Your task to perform on an android device: Clear the cart on newegg.com. Search for "corsair k70" on newegg.com, select the first entry, and add it to the cart. Image 0: 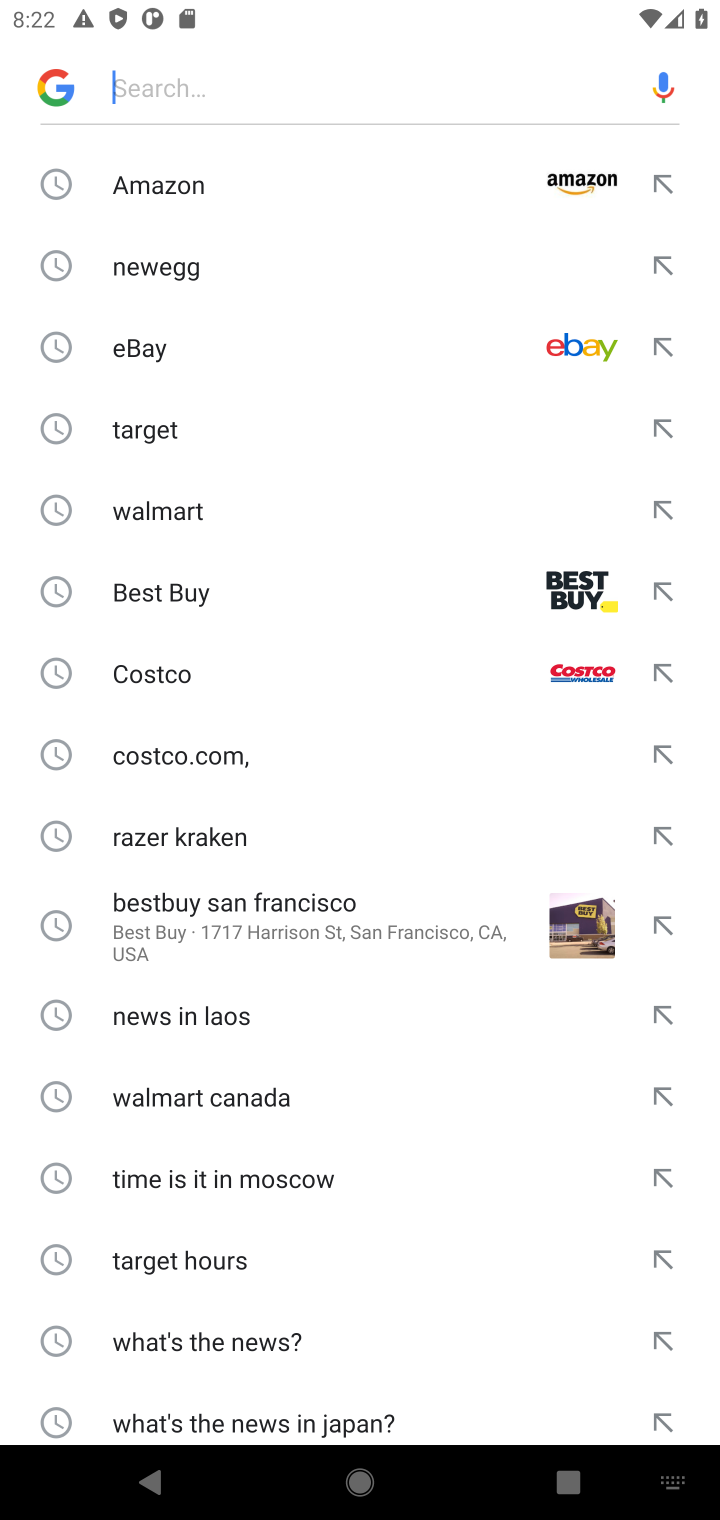
Step 0: press home button
Your task to perform on an android device: Clear the cart on newegg.com. Search for "corsair k70" on newegg.com, select the first entry, and add it to the cart. Image 1: 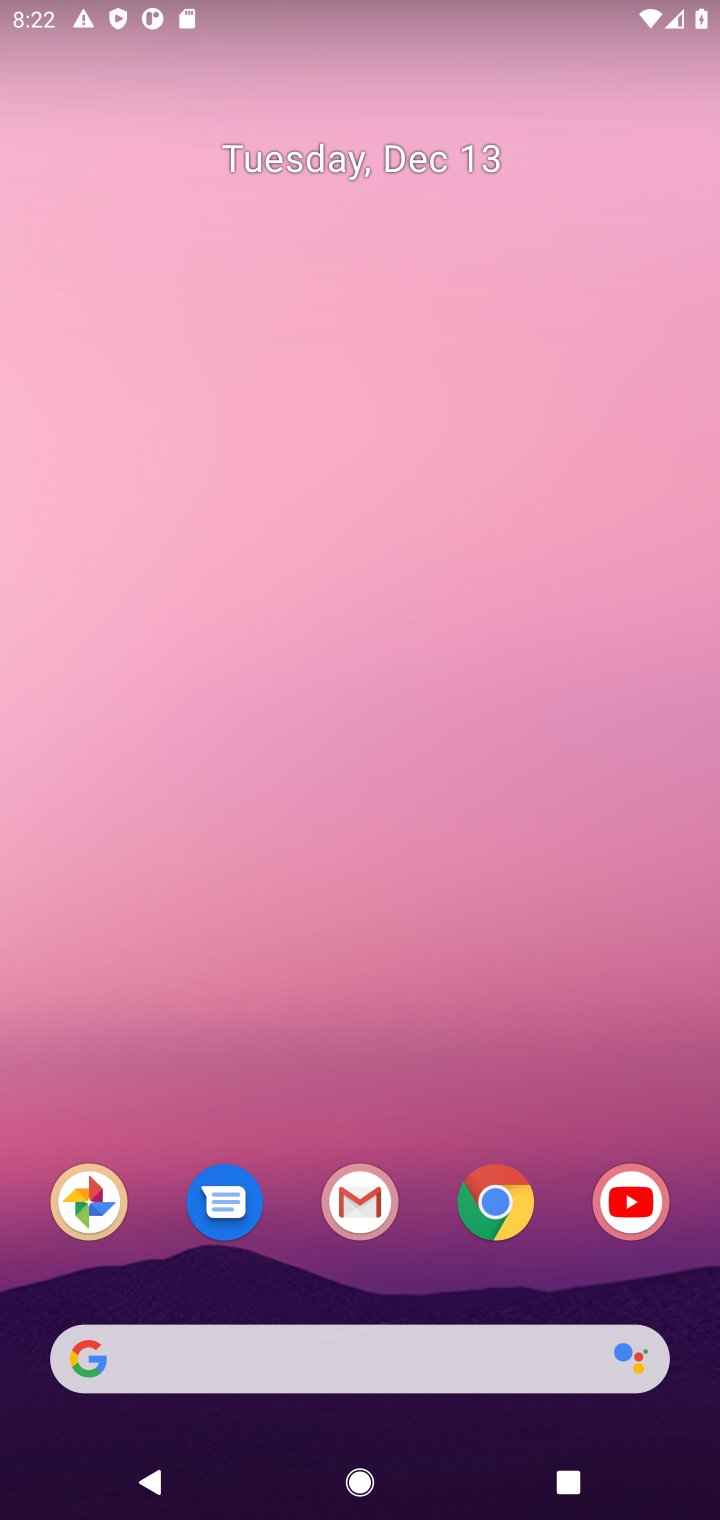
Step 1: click (492, 1188)
Your task to perform on an android device: Clear the cart on newegg.com. Search for "corsair k70" on newegg.com, select the first entry, and add it to the cart. Image 2: 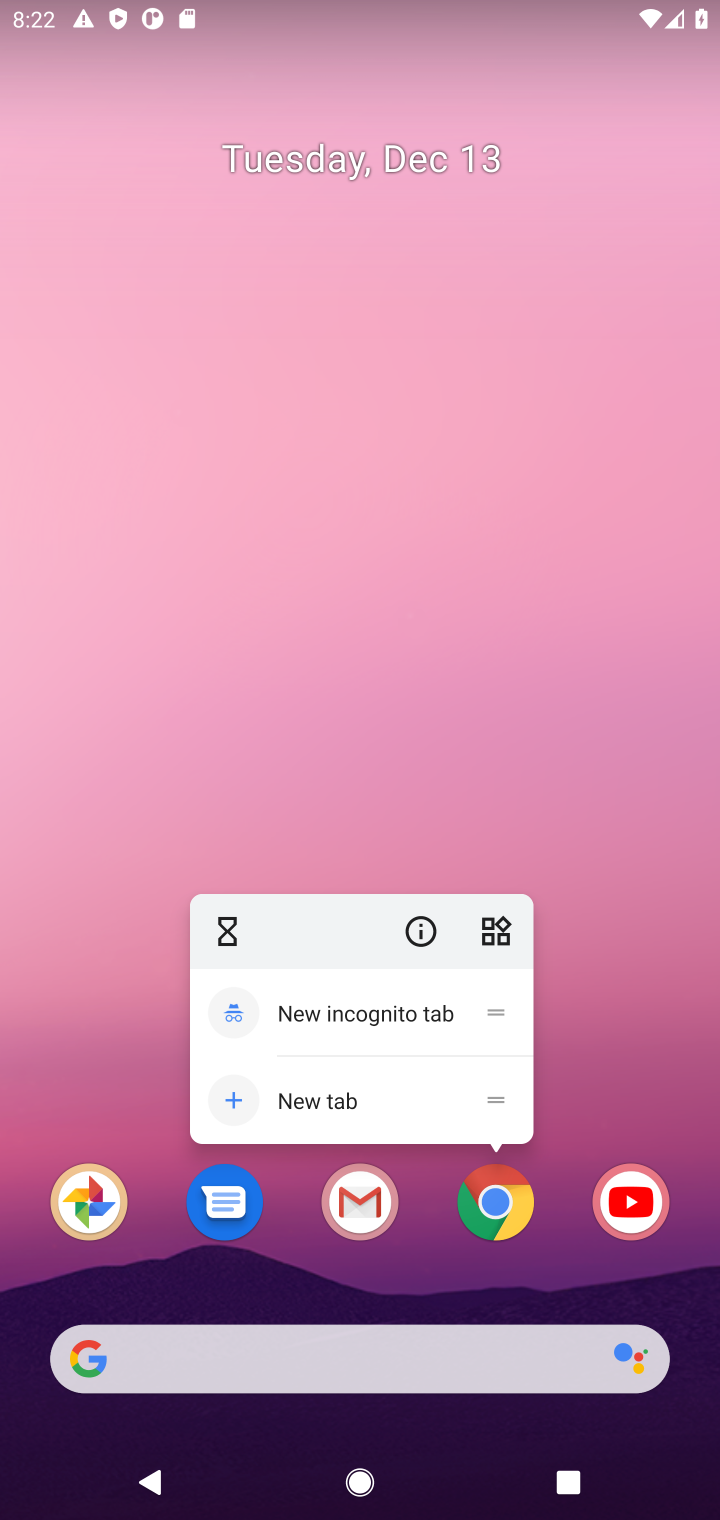
Step 2: click (494, 1187)
Your task to perform on an android device: Clear the cart on newegg.com. Search for "corsair k70" on newegg.com, select the first entry, and add it to the cart. Image 3: 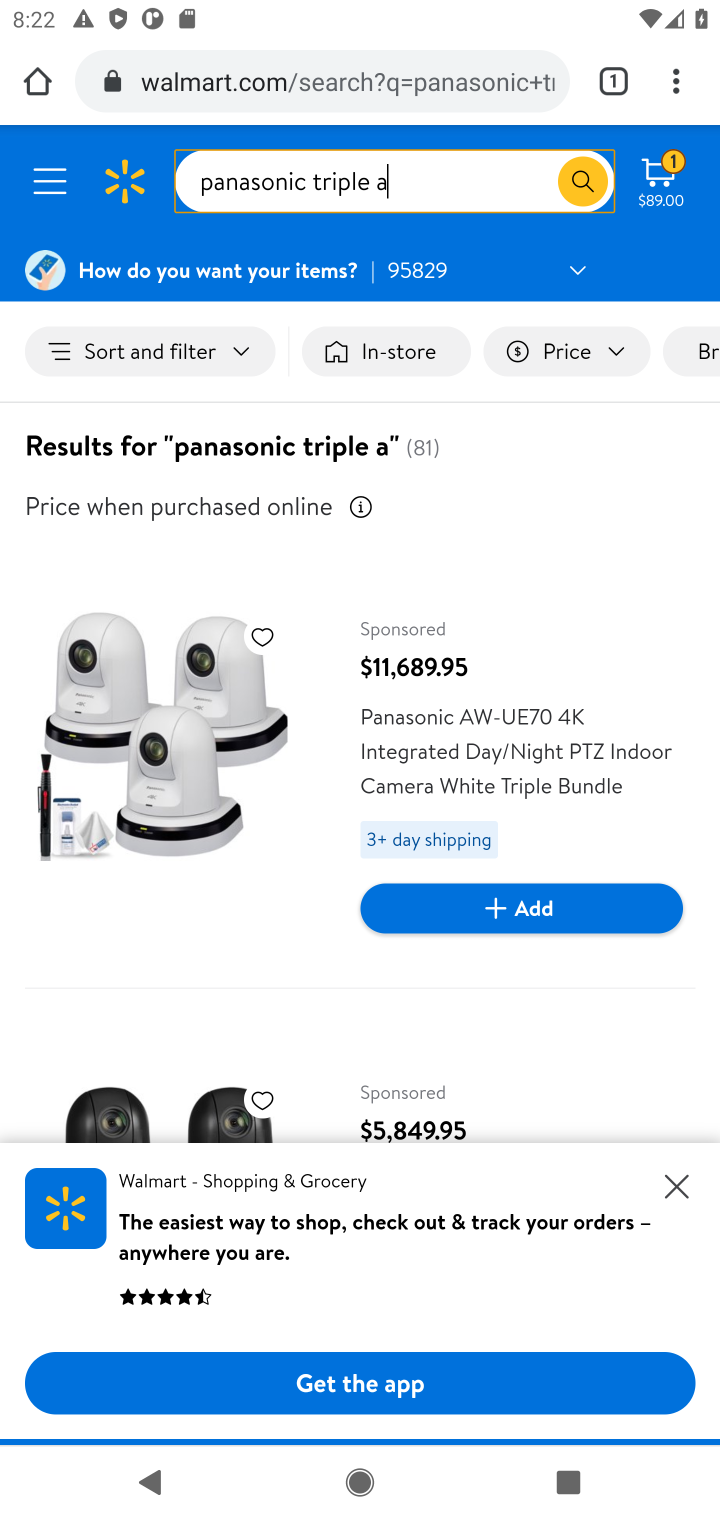
Step 3: click (422, 90)
Your task to perform on an android device: Clear the cart on newegg.com. Search for "corsair k70" on newegg.com, select the first entry, and add it to the cart. Image 4: 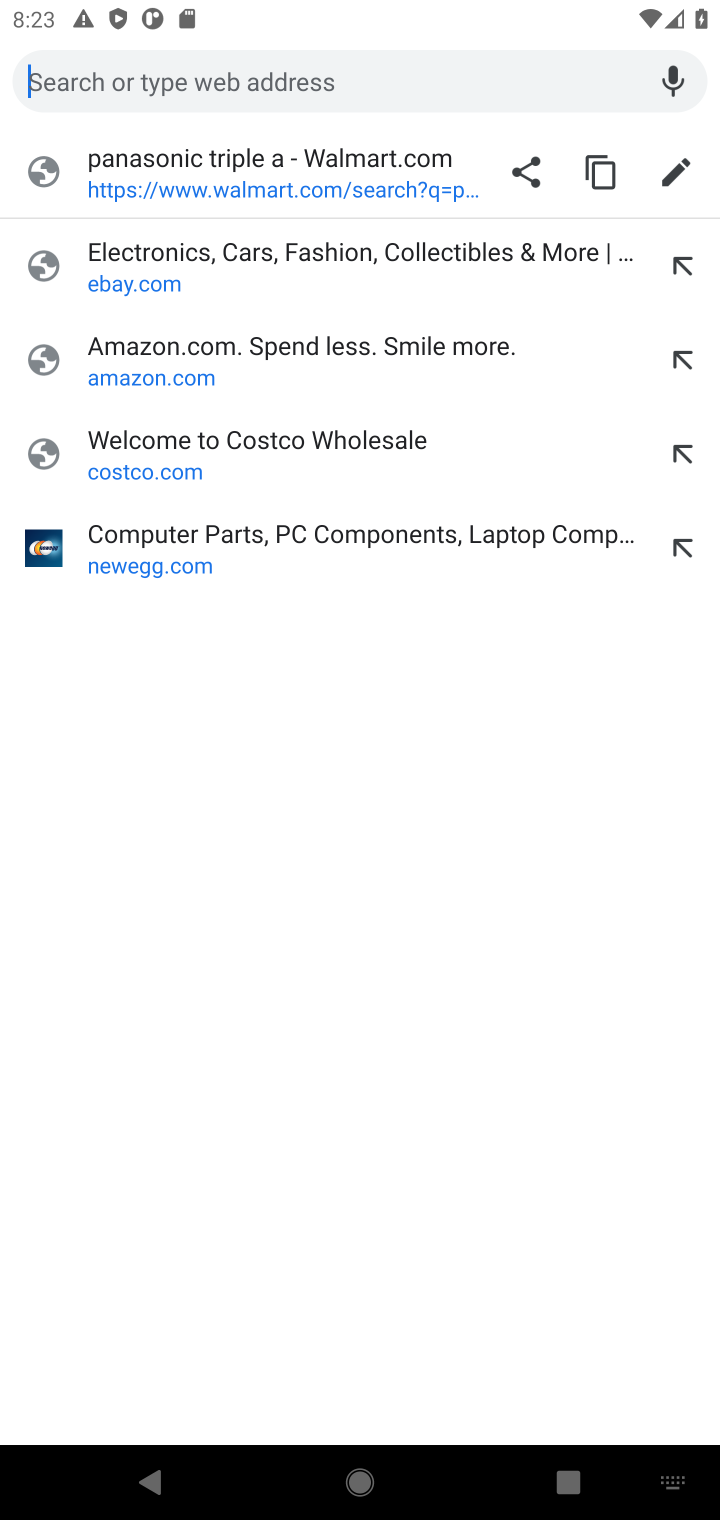
Step 4: click (185, 565)
Your task to perform on an android device: Clear the cart on newegg.com. Search for "corsair k70" on newegg.com, select the first entry, and add it to the cart. Image 5: 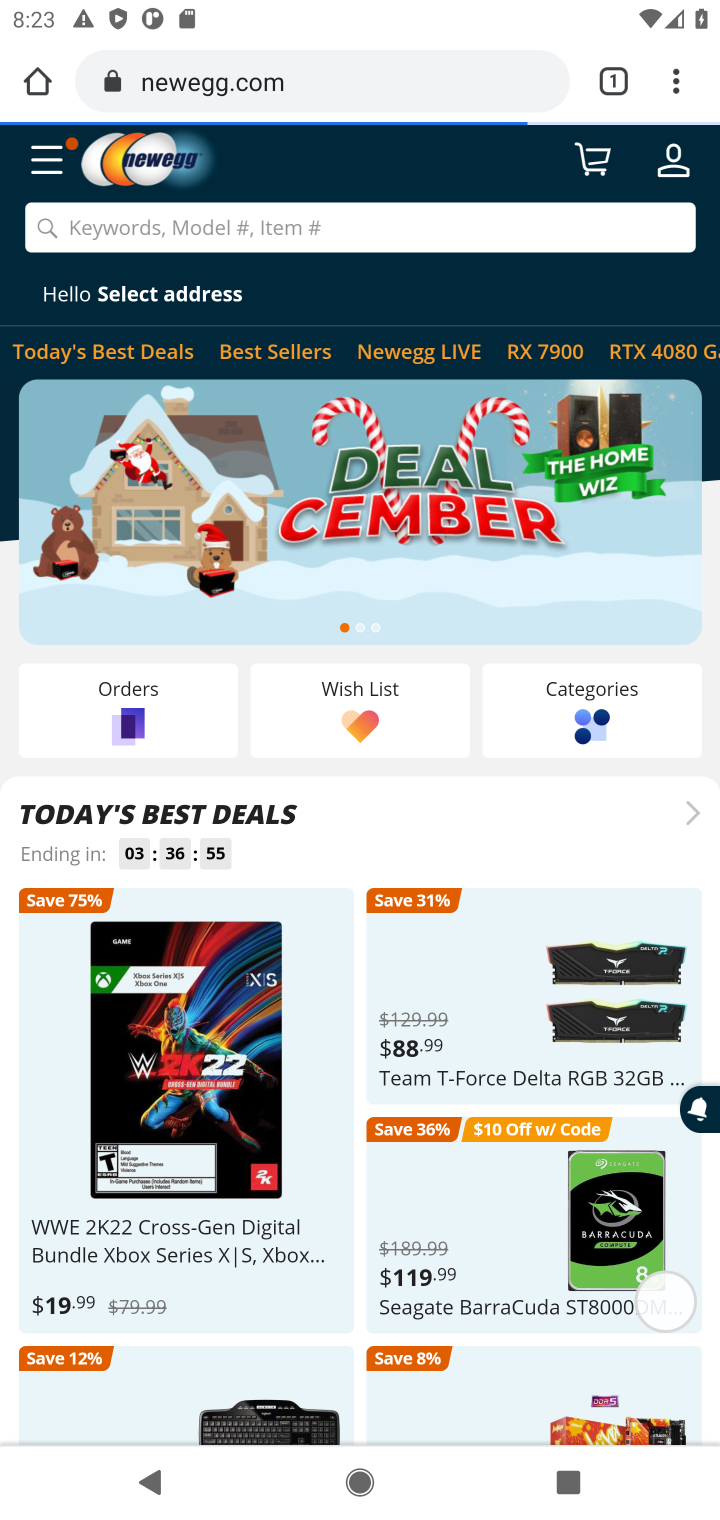
Step 5: click (600, 167)
Your task to perform on an android device: Clear the cart on newegg.com. Search for "corsair k70" on newegg.com, select the first entry, and add it to the cart. Image 6: 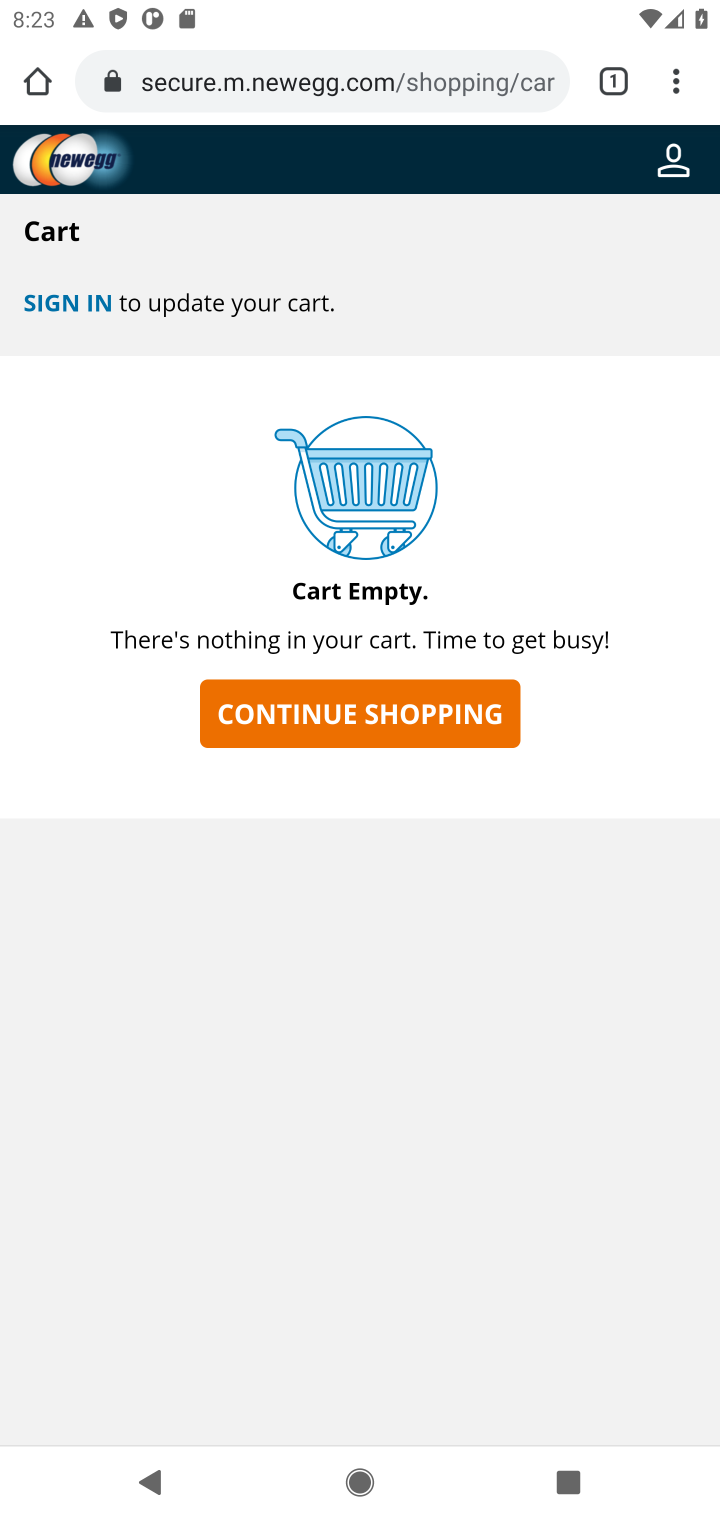
Step 6: click (403, 720)
Your task to perform on an android device: Clear the cart on newegg.com. Search for "corsair k70" on newegg.com, select the first entry, and add it to the cart. Image 7: 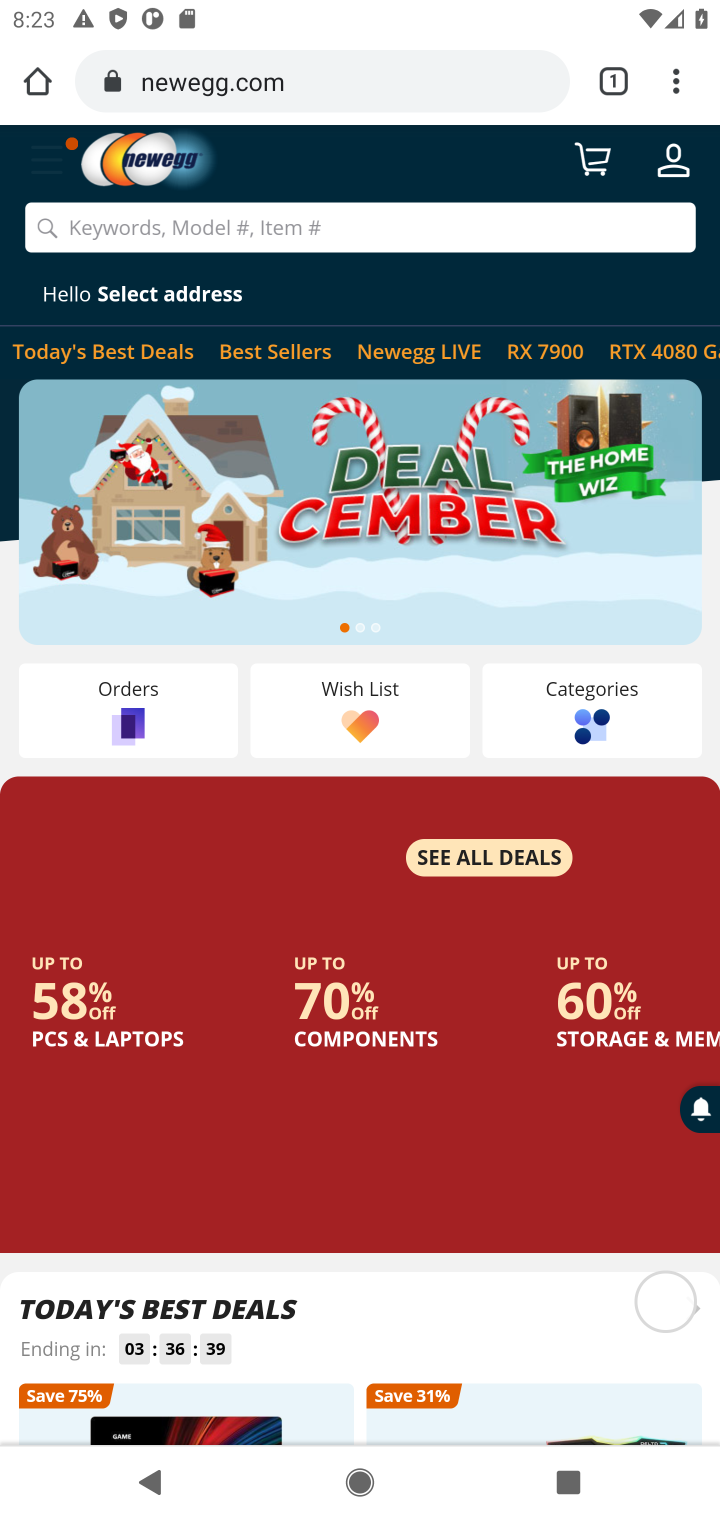
Step 7: click (525, 230)
Your task to perform on an android device: Clear the cart on newegg.com. Search for "corsair k70" on newegg.com, select the first entry, and add it to the cart. Image 8: 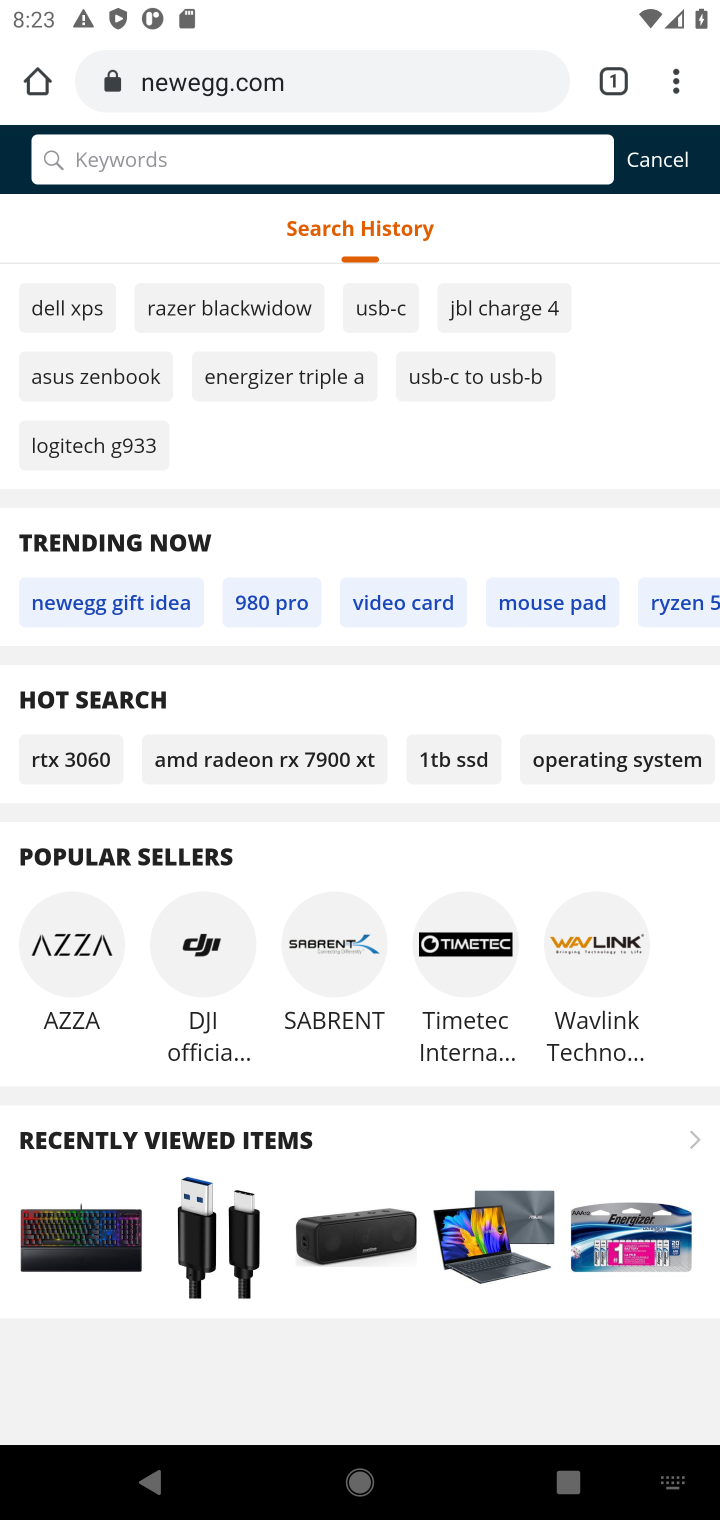
Step 8: type "corsair k70"
Your task to perform on an android device: Clear the cart on newegg.com. Search for "corsair k70" on newegg.com, select the first entry, and add it to the cart. Image 9: 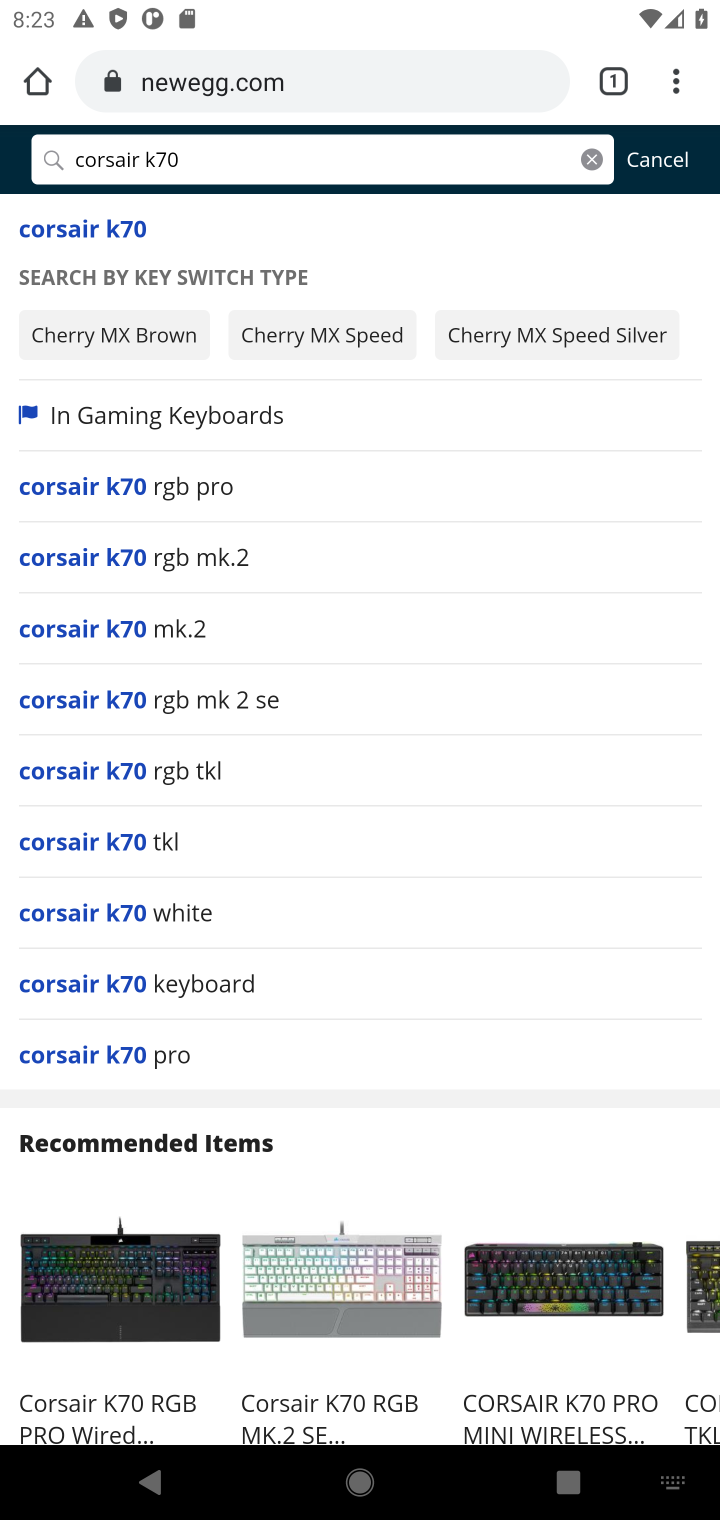
Step 9: click (130, 228)
Your task to perform on an android device: Clear the cart on newegg.com. Search for "corsair k70" on newegg.com, select the first entry, and add it to the cart. Image 10: 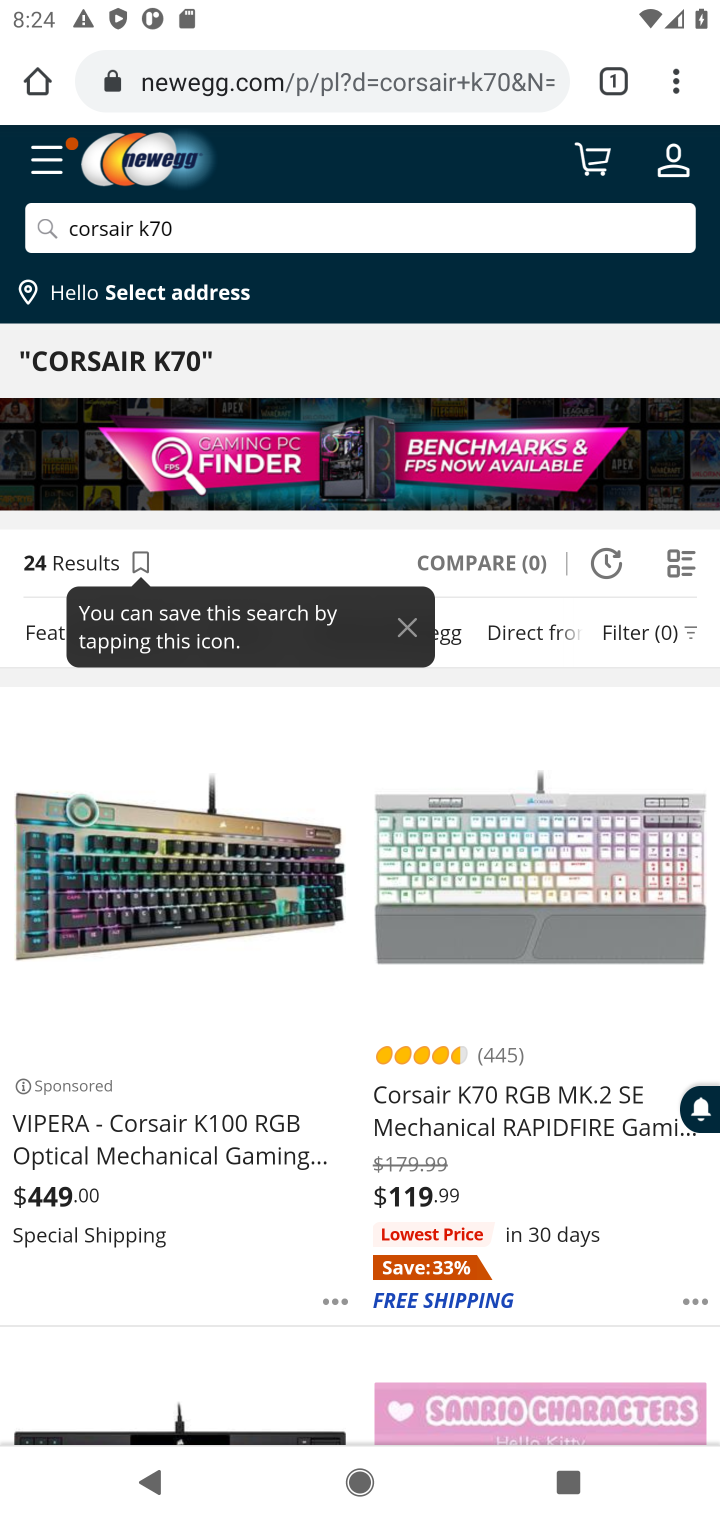
Step 10: task complete